Your task to perform on an android device: open app "WhatsApp Messenger" (install if not already installed) and enter user name: "cartons@outlook.com" and password: "approximated" Image 0: 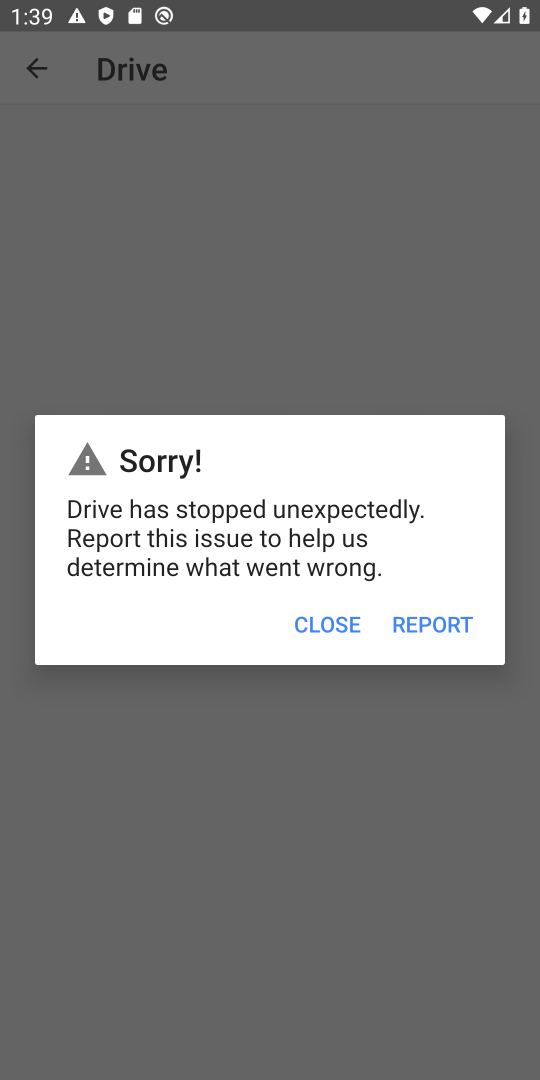
Step 0: task impossible